Your task to perform on an android device: allow notifications from all sites in the chrome app Image 0: 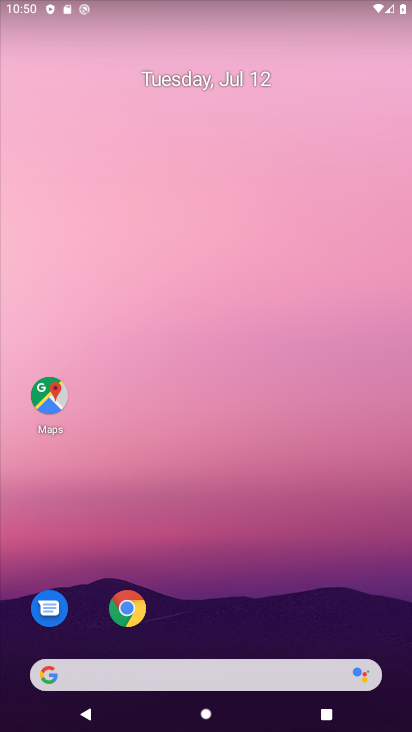
Step 0: click (126, 607)
Your task to perform on an android device: allow notifications from all sites in the chrome app Image 1: 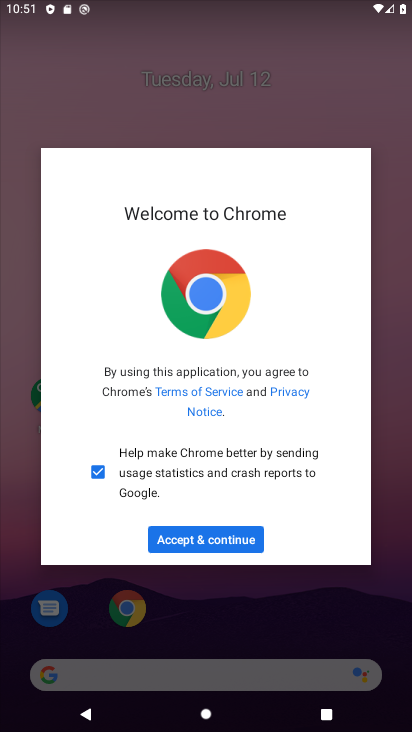
Step 1: click (232, 536)
Your task to perform on an android device: allow notifications from all sites in the chrome app Image 2: 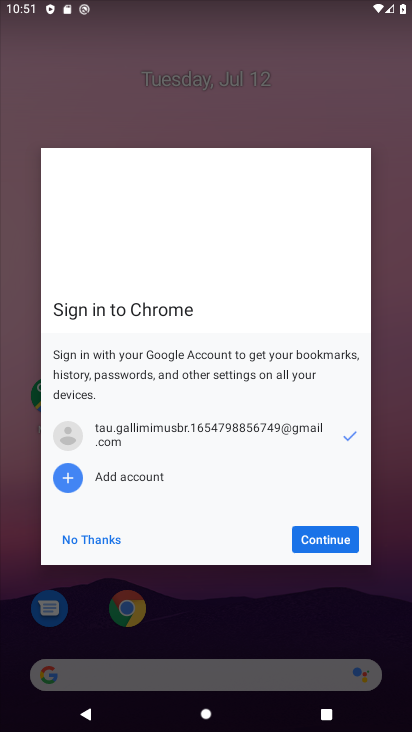
Step 2: click (309, 535)
Your task to perform on an android device: allow notifications from all sites in the chrome app Image 3: 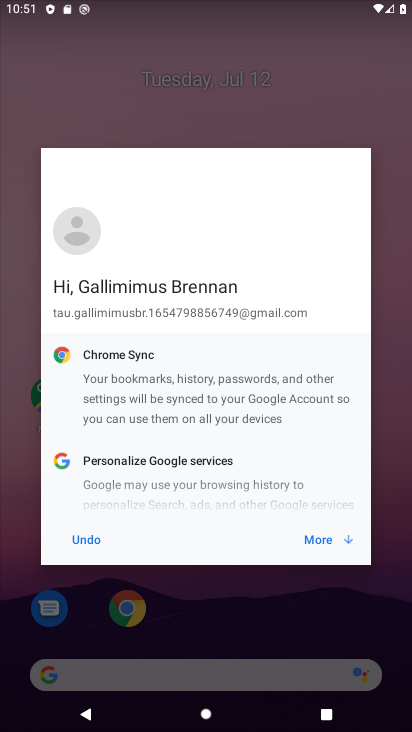
Step 3: click (321, 534)
Your task to perform on an android device: allow notifications from all sites in the chrome app Image 4: 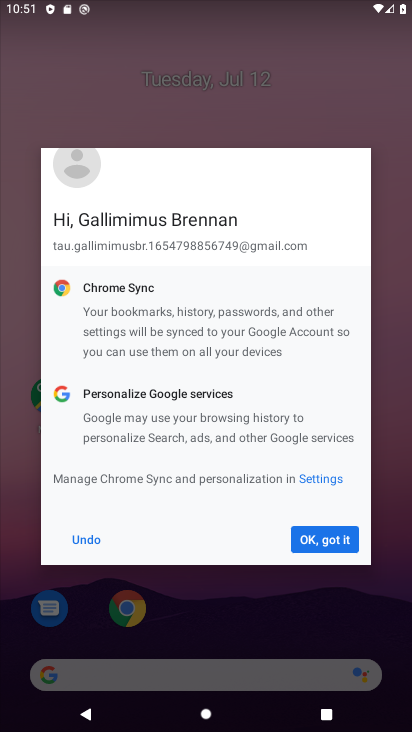
Step 4: click (330, 540)
Your task to perform on an android device: allow notifications from all sites in the chrome app Image 5: 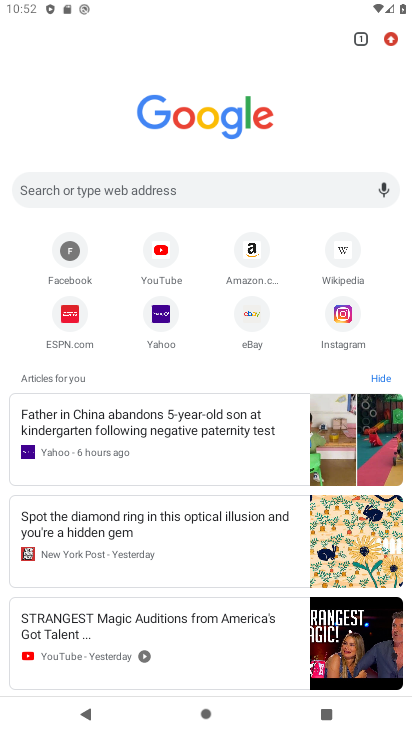
Step 5: click (388, 38)
Your task to perform on an android device: allow notifications from all sites in the chrome app Image 6: 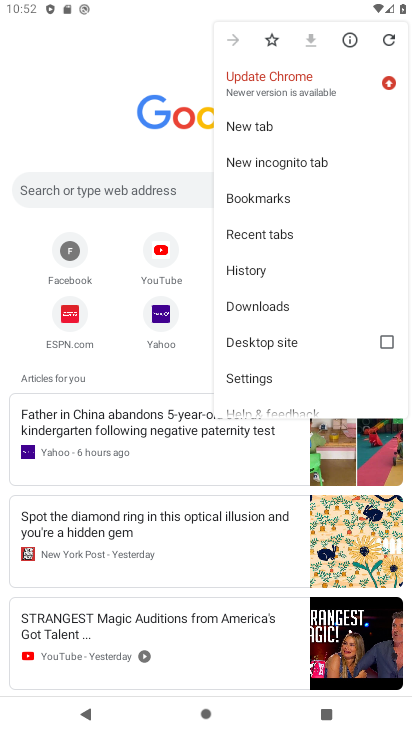
Step 6: click (249, 374)
Your task to perform on an android device: allow notifications from all sites in the chrome app Image 7: 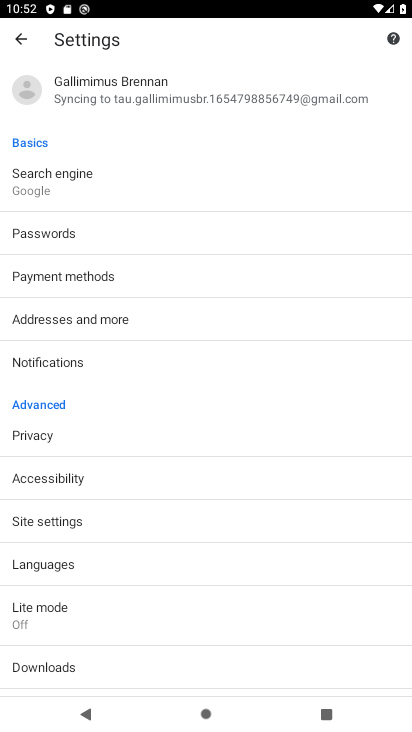
Step 7: click (42, 518)
Your task to perform on an android device: allow notifications from all sites in the chrome app Image 8: 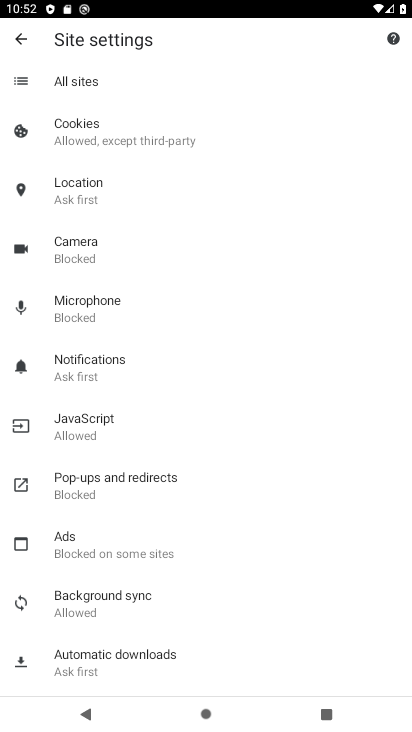
Step 8: click (82, 359)
Your task to perform on an android device: allow notifications from all sites in the chrome app Image 9: 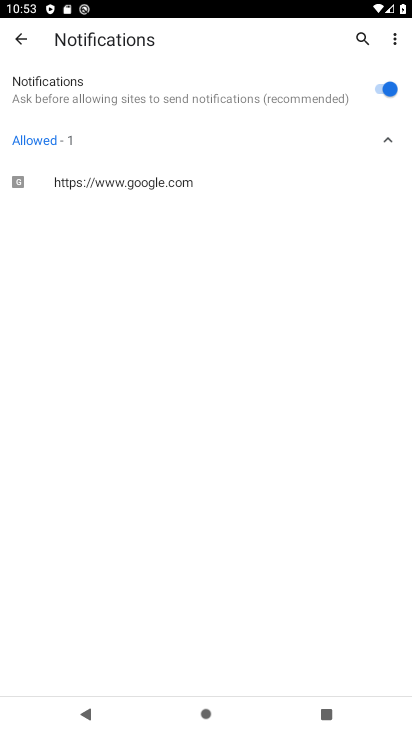
Step 9: task complete